Your task to perform on an android device: turn off data saver in the chrome app Image 0: 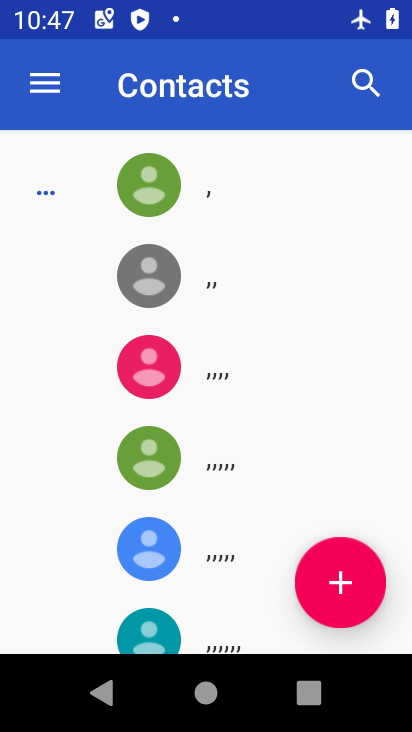
Step 0: press home button
Your task to perform on an android device: turn off data saver in the chrome app Image 1: 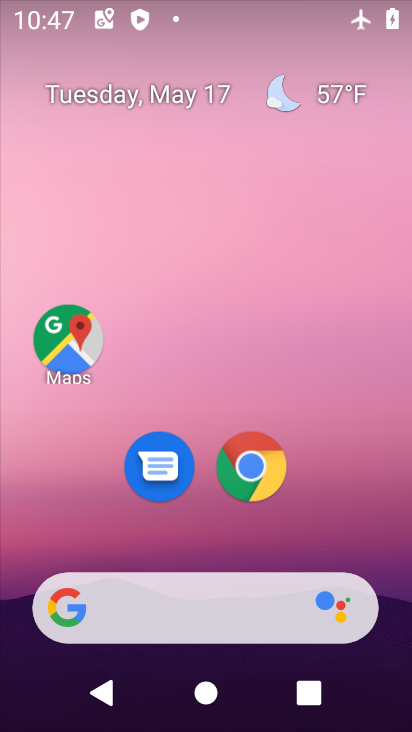
Step 1: drag from (233, 648) to (233, 145)
Your task to perform on an android device: turn off data saver in the chrome app Image 2: 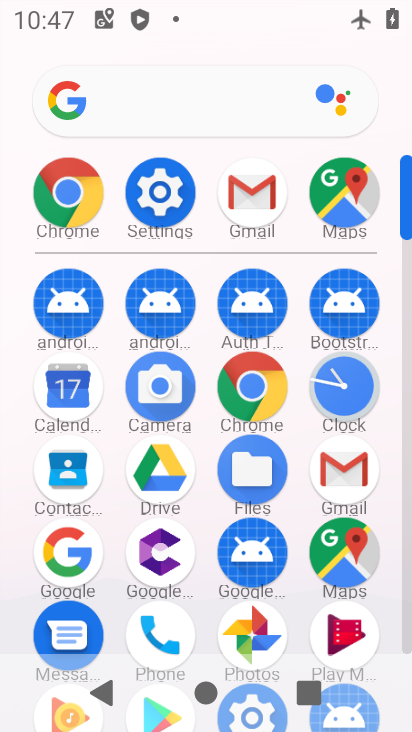
Step 2: click (86, 185)
Your task to perform on an android device: turn off data saver in the chrome app Image 3: 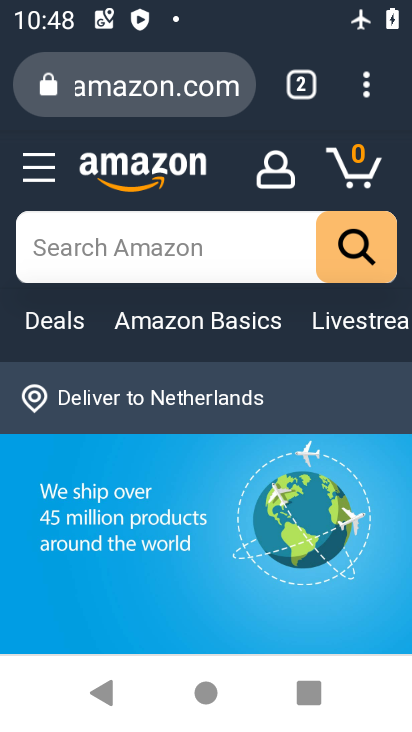
Step 3: click (352, 112)
Your task to perform on an android device: turn off data saver in the chrome app Image 4: 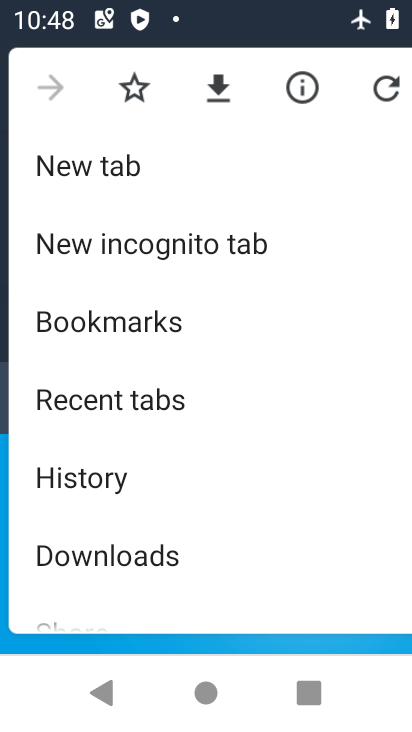
Step 4: drag from (120, 383) to (110, 243)
Your task to perform on an android device: turn off data saver in the chrome app Image 5: 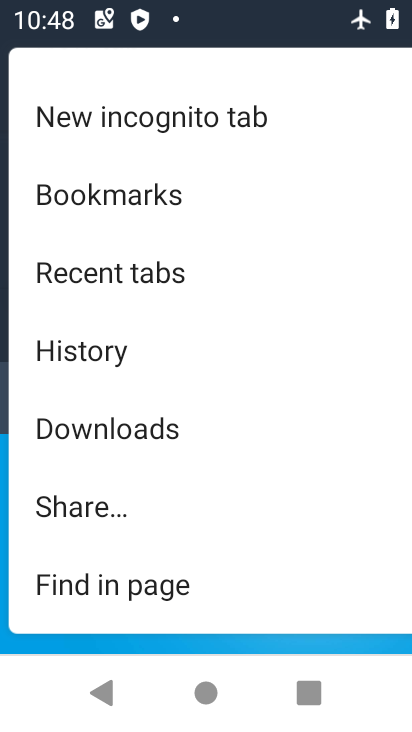
Step 5: drag from (148, 572) to (156, 373)
Your task to perform on an android device: turn off data saver in the chrome app Image 6: 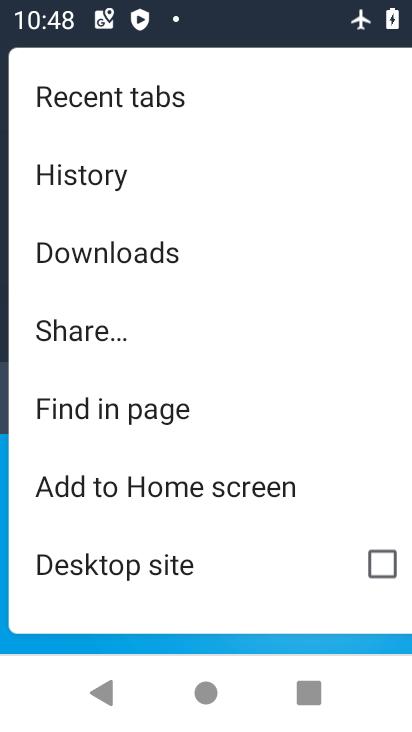
Step 6: drag from (94, 583) to (162, 371)
Your task to perform on an android device: turn off data saver in the chrome app Image 7: 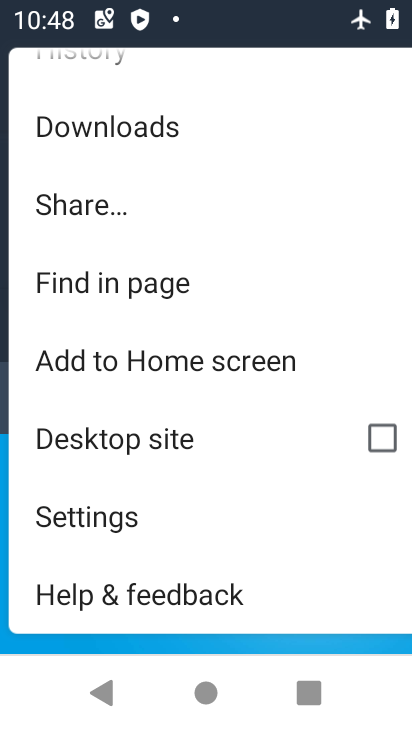
Step 7: click (73, 514)
Your task to perform on an android device: turn off data saver in the chrome app Image 8: 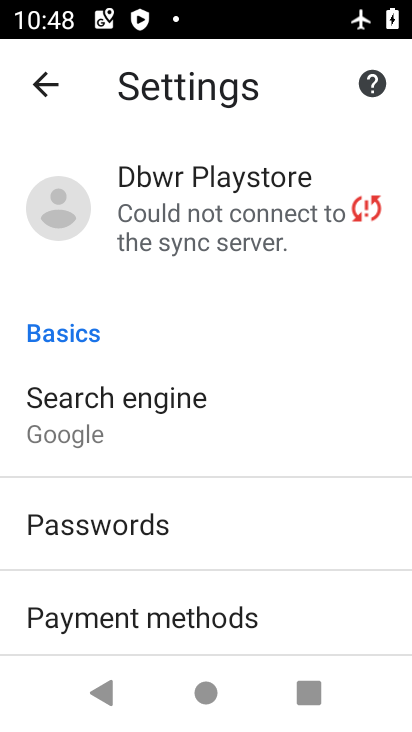
Step 8: drag from (149, 568) to (216, 306)
Your task to perform on an android device: turn off data saver in the chrome app Image 9: 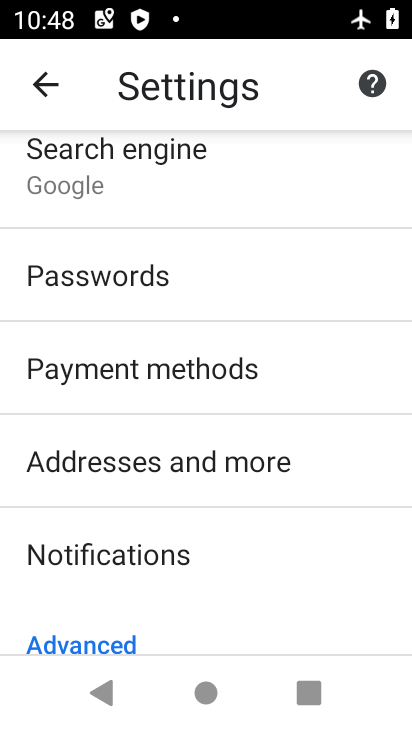
Step 9: drag from (185, 519) to (278, 253)
Your task to perform on an android device: turn off data saver in the chrome app Image 10: 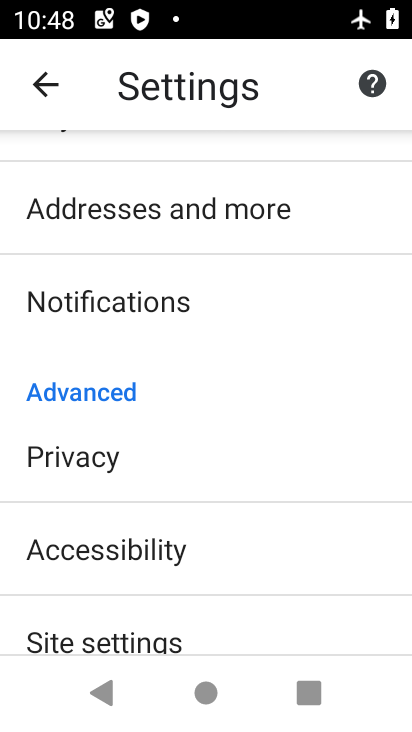
Step 10: drag from (147, 551) to (196, 330)
Your task to perform on an android device: turn off data saver in the chrome app Image 11: 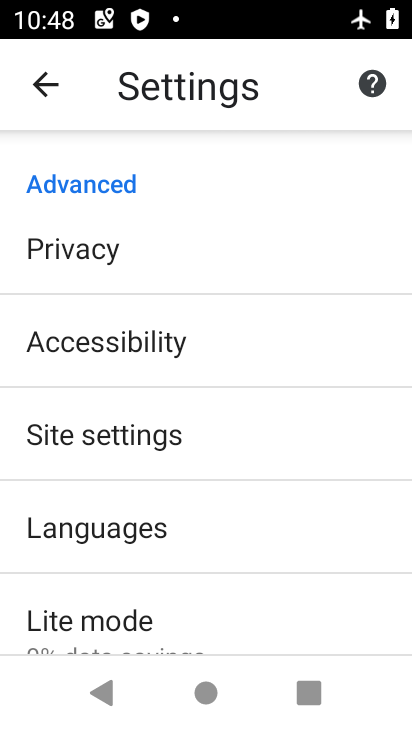
Step 11: drag from (123, 436) to (166, 322)
Your task to perform on an android device: turn off data saver in the chrome app Image 12: 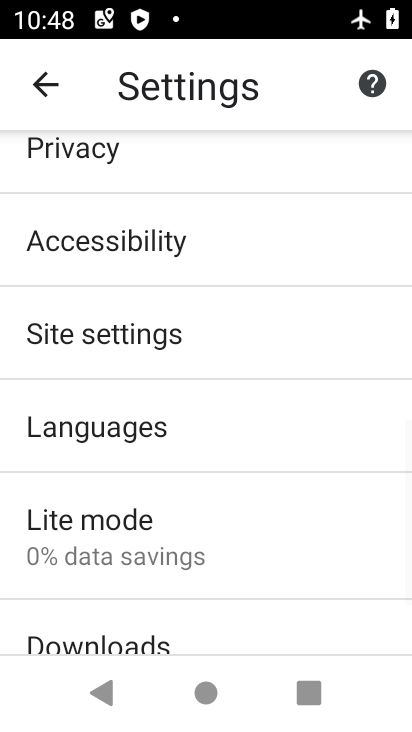
Step 12: click (110, 524)
Your task to perform on an android device: turn off data saver in the chrome app Image 13: 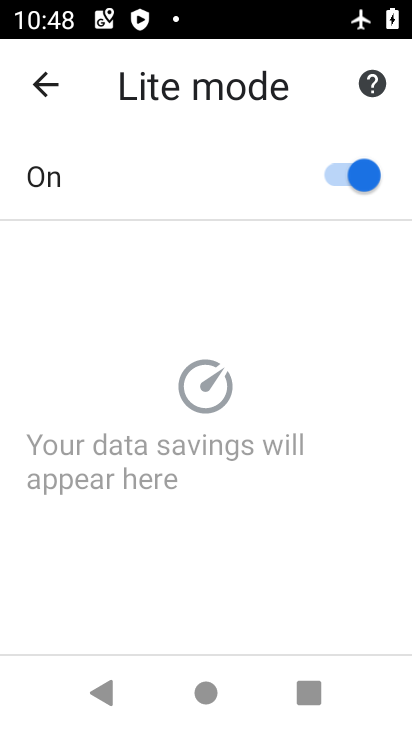
Step 13: click (352, 195)
Your task to perform on an android device: turn off data saver in the chrome app Image 14: 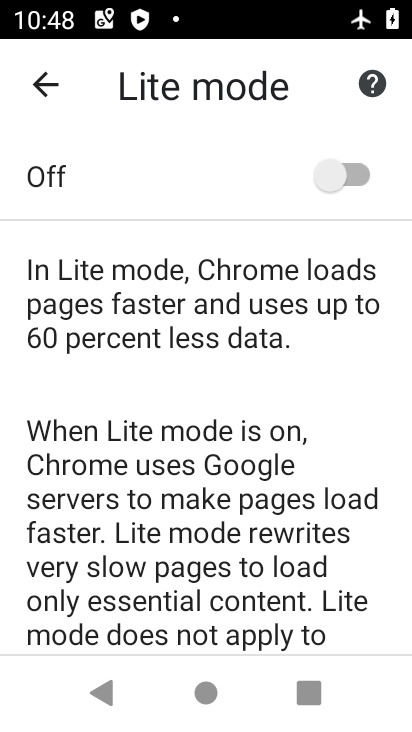
Step 14: task complete